Your task to perform on an android device: Go to internet settings Image 0: 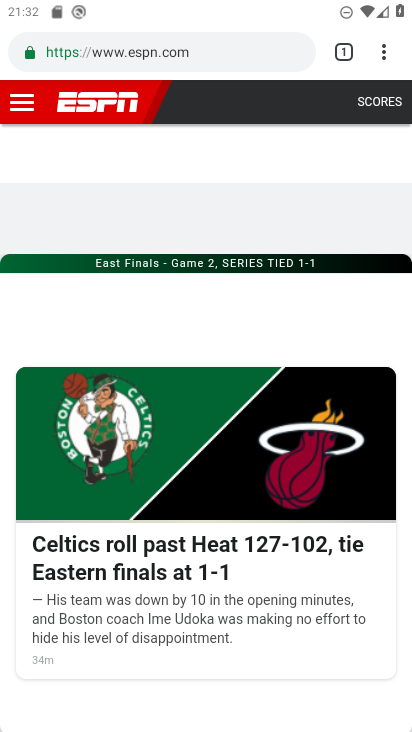
Step 0: press home button
Your task to perform on an android device: Go to internet settings Image 1: 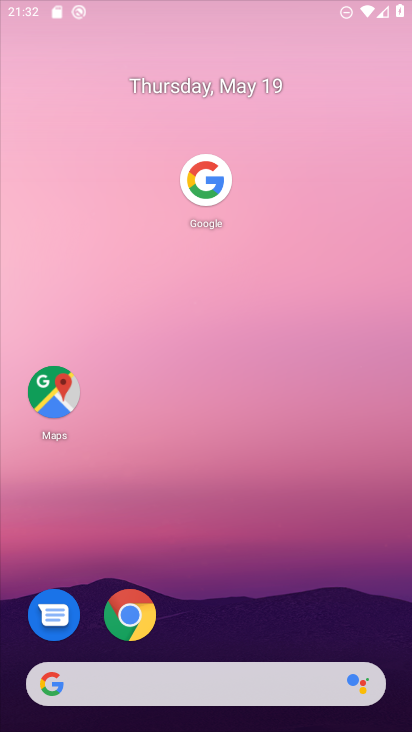
Step 1: drag from (221, 598) to (253, 81)
Your task to perform on an android device: Go to internet settings Image 2: 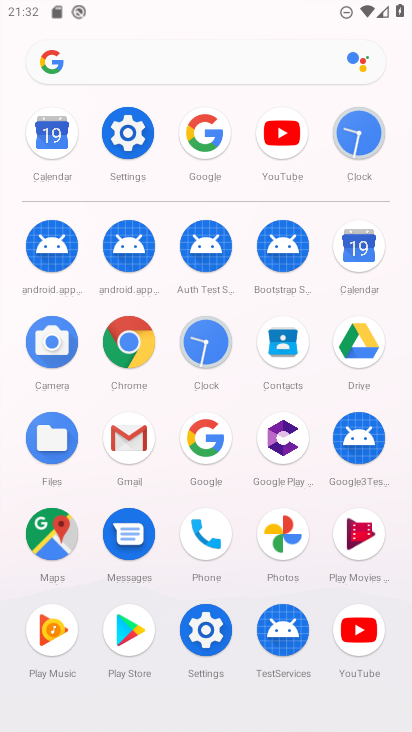
Step 2: click (136, 133)
Your task to perform on an android device: Go to internet settings Image 3: 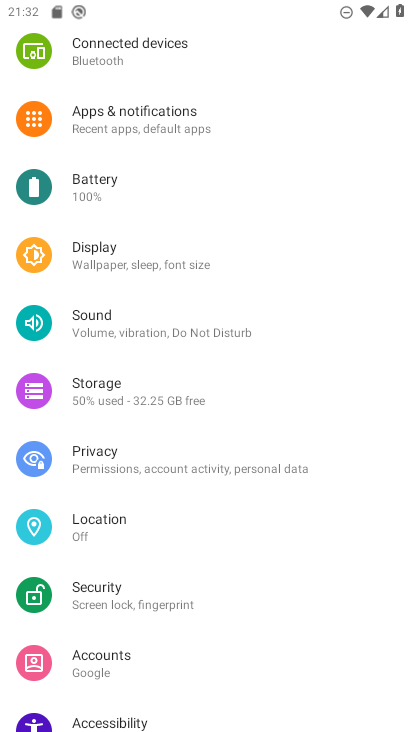
Step 3: drag from (164, 98) to (224, 465)
Your task to perform on an android device: Go to internet settings Image 4: 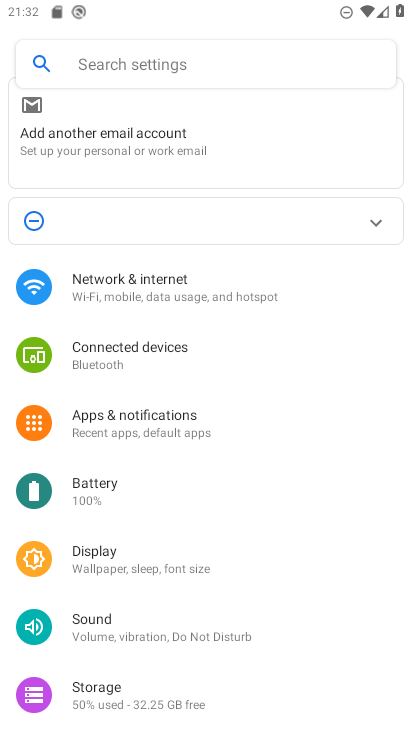
Step 4: click (140, 300)
Your task to perform on an android device: Go to internet settings Image 5: 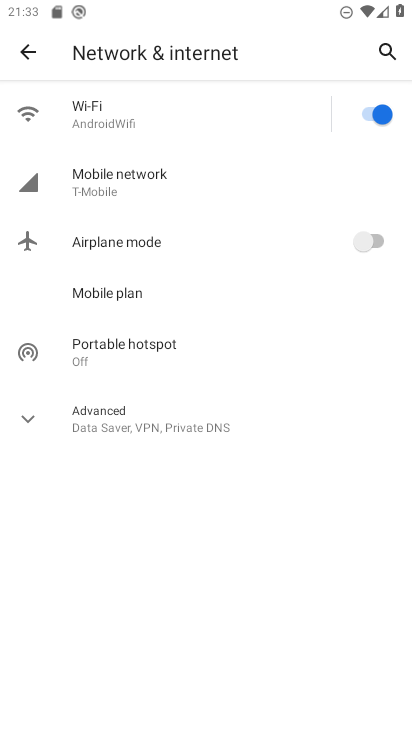
Step 5: click (121, 116)
Your task to perform on an android device: Go to internet settings Image 6: 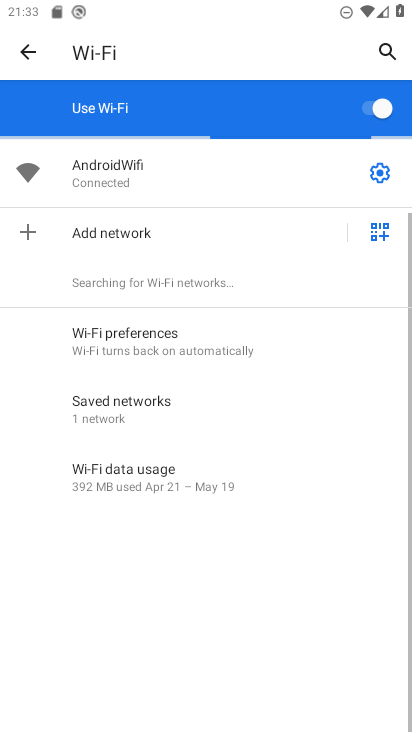
Step 6: click (301, 175)
Your task to perform on an android device: Go to internet settings Image 7: 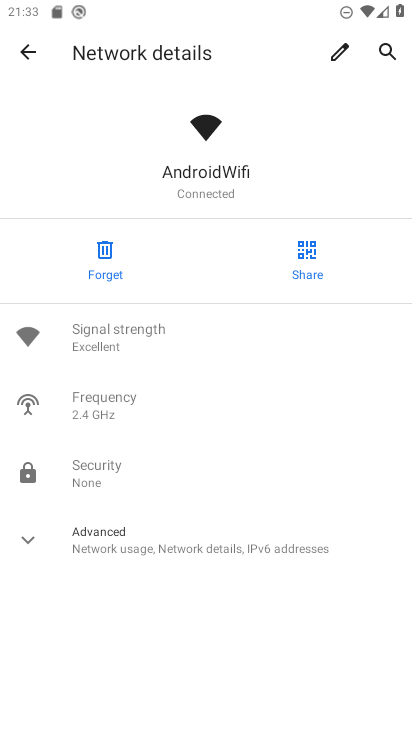
Step 7: task complete